Your task to perform on an android device: Open maps Image 0: 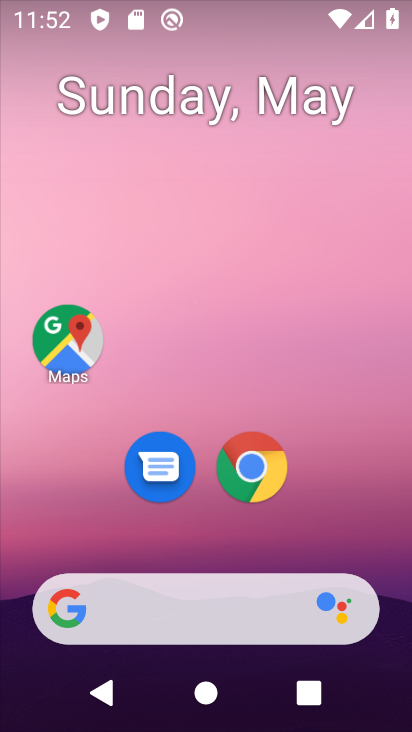
Step 0: press home button
Your task to perform on an android device: Open maps Image 1: 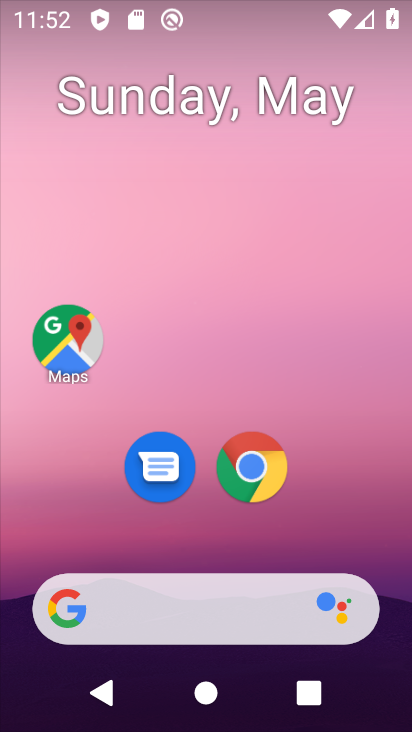
Step 1: click (69, 343)
Your task to perform on an android device: Open maps Image 2: 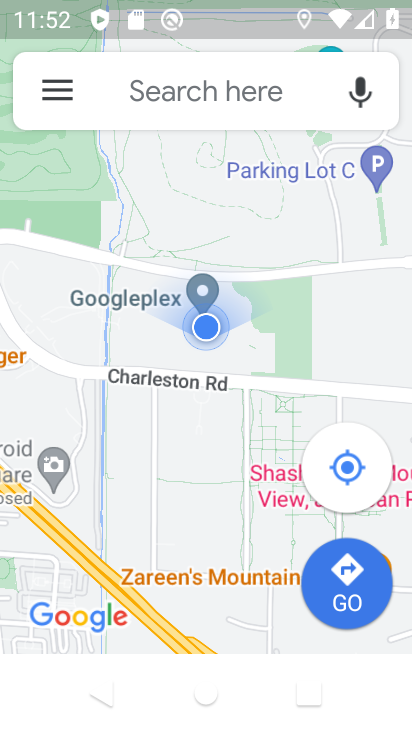
Step 2: task complete